Your task to perform on an android device: Open Maps and search for coffee Image 0: 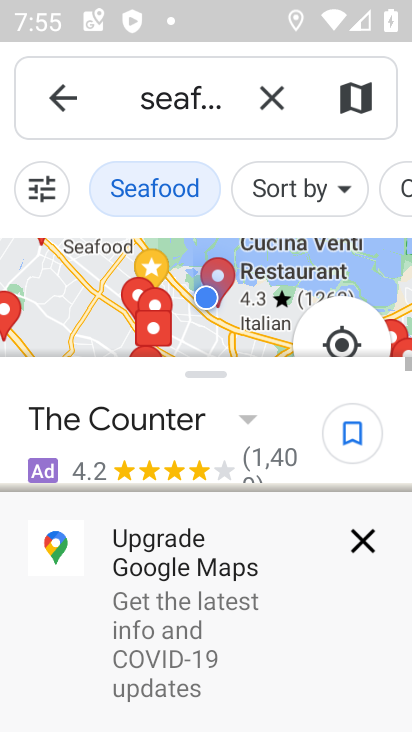
Step 0: press home button
Your task to perform on an android device: Open Maps and search for coffee Image 1: 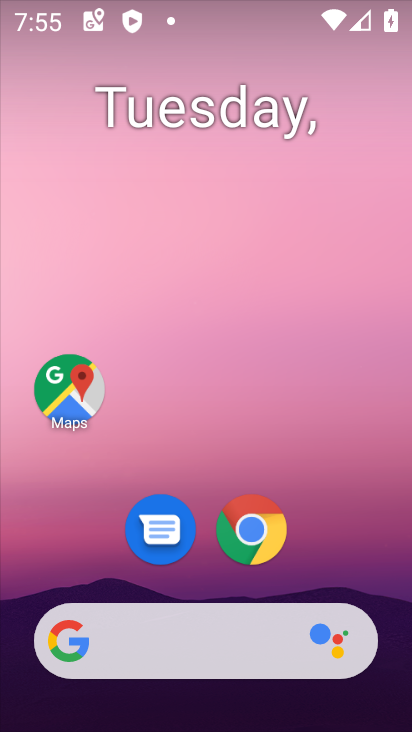
Step 1: drag from (179, 622) to (377, 121)
Your task to perform on an android device: Open Maps and search for coffee Image 2: 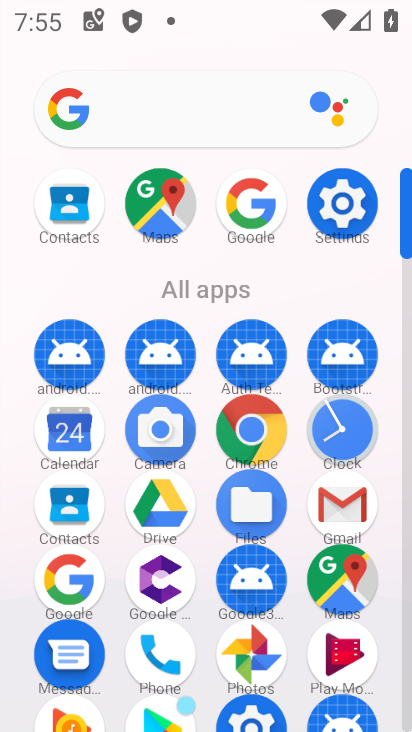
Step 2: click (350, 591)
Your task to perform on an android device: Open Maps and search for coffee Image 3: 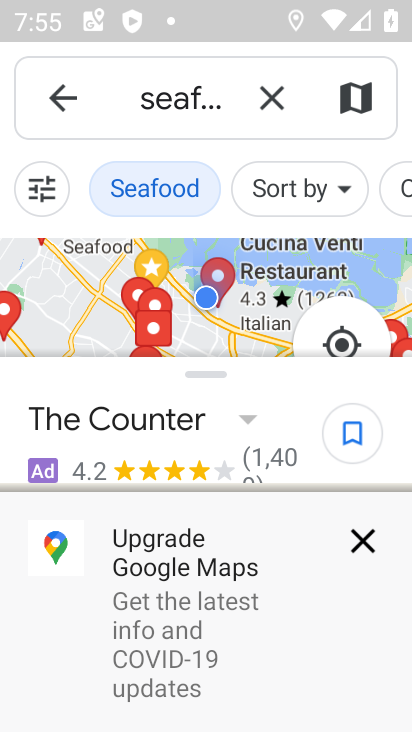
Step 3: click (281, 104)
Your task to perform on an android device: Open Maps and search for coffee Image 4: 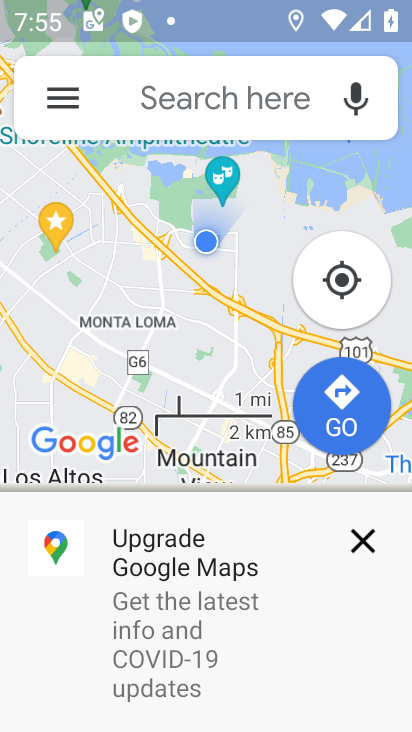
Step 4: click (197, 103)
Your task to perform on an android device: Open Maps and search for coffee Image 5: 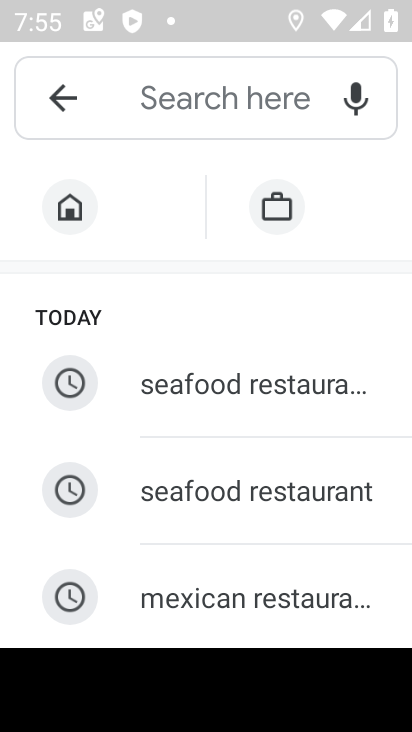
Step 5: type "coffee"
Your task to perform on an android device: Open Maps and search for coffee Image 6: 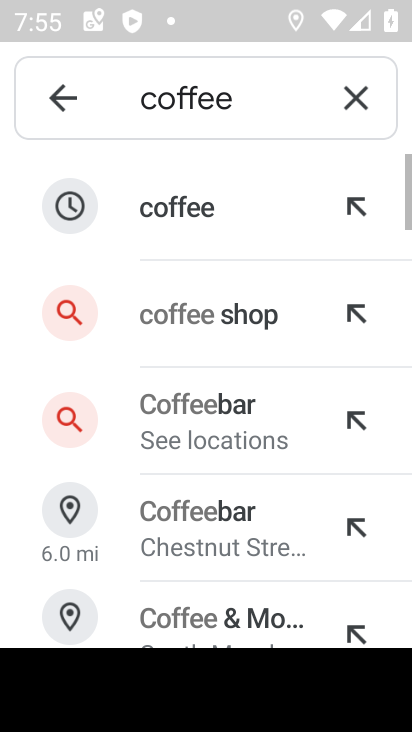
Step 6: click (229, 216)
Your task to perform on an android device: Open Maps and search for coffee Image 7: 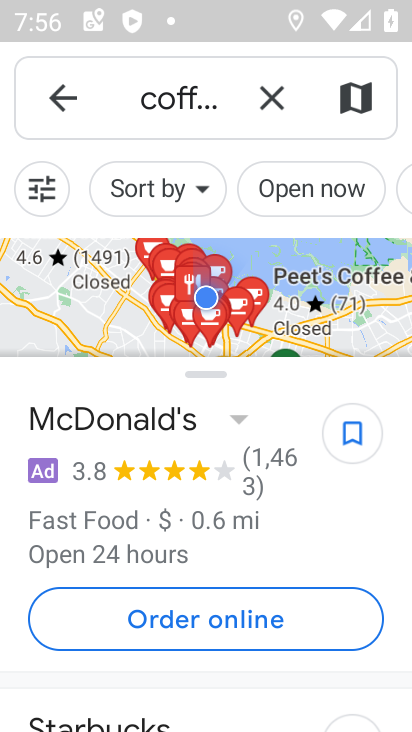
Step 7: task complete